Your task to perform on an android device: turn pop-ups on in chrome Image 0: 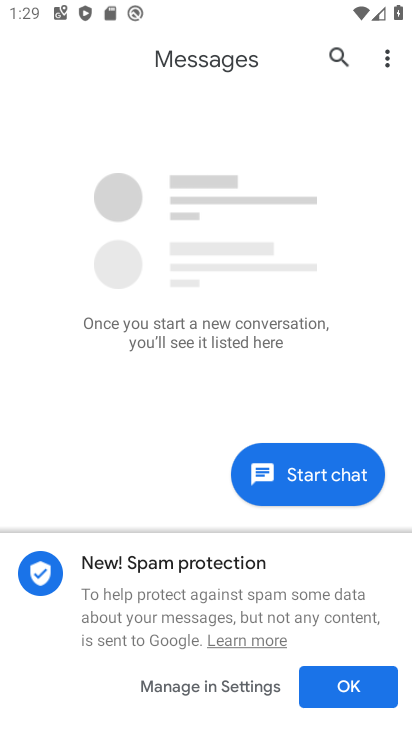
Step 0: press home button
Your task to perform on an android device: turn pop-ups on in chrome Image 1: 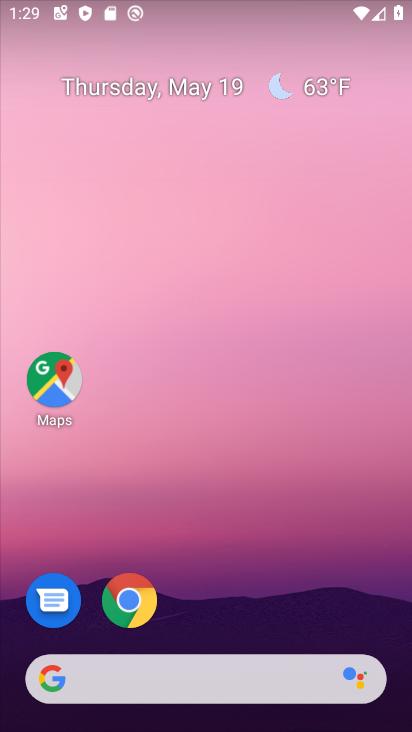
Step 1: drag from (285, 631) to (248, 523)
Your task to perform on an android device: turn pop-ups on in chrome Image 2: 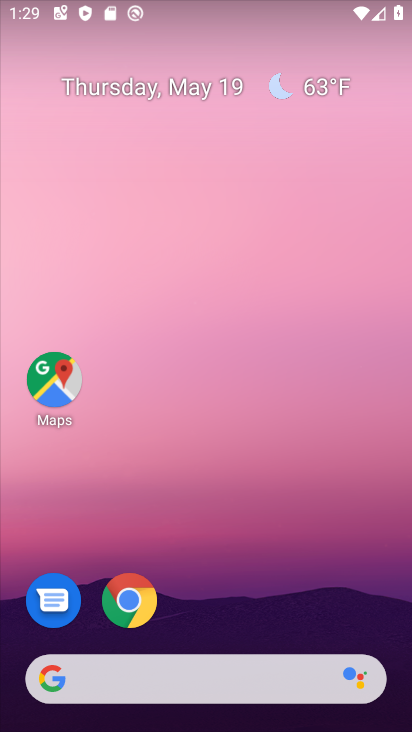
Step 2: click (125, 586)
Your task to perform on an android device: turn pop-ups on in chrome Image 3: 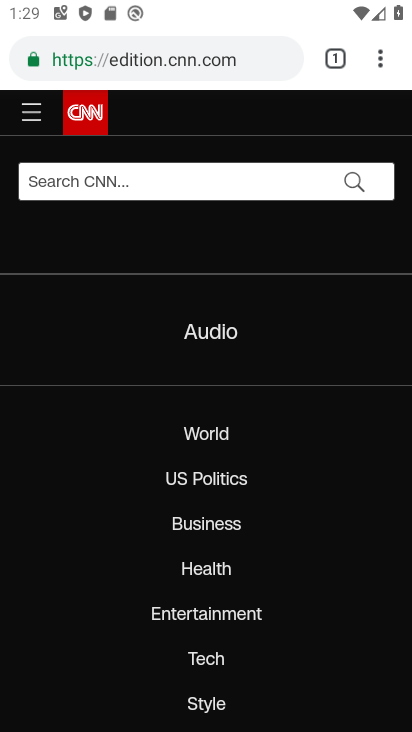
Step 3: click (379, 57)
Your task to perform on an android device: turn pop-ups on in chrome Image 4: 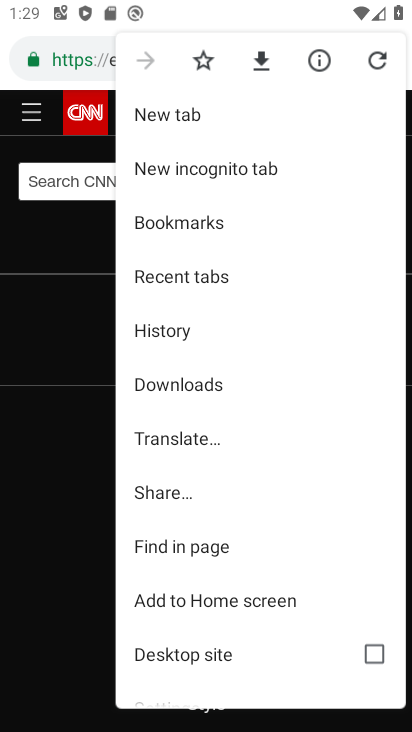
Step 4: drag from (201, 627) to (205, 280)
Your task to perform on an android device: turn pop-ups on in chrome Image 5: 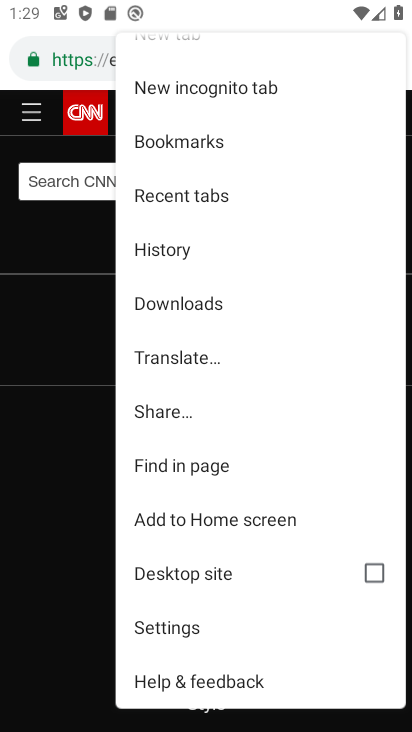
Step 5: click (207, 625)
Your task to perform on an android device: turn pop-ups on in chrome Image 6: 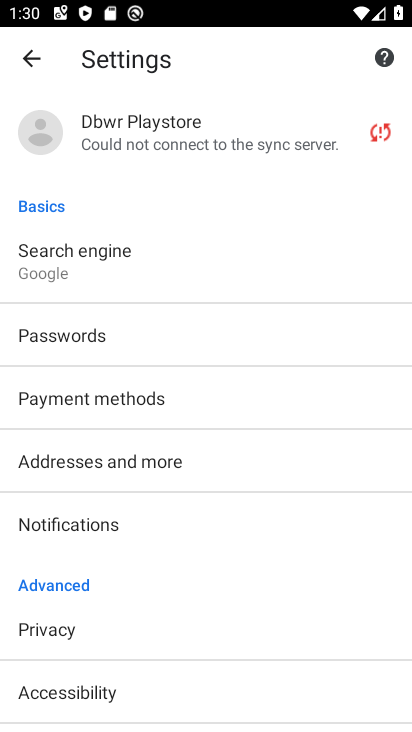
Step 6: drag from (190, 668) to (166, 302)
Your task to perform on an android device: turn pop-ups on in chrome Image 7: 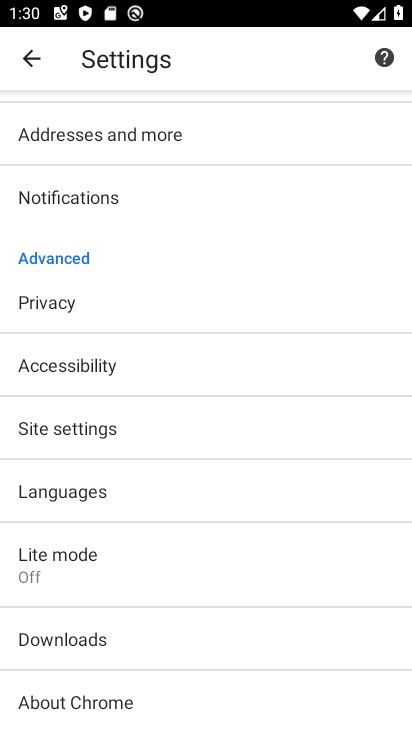
Step 7: click (124, 437)
Your task to perform on an android device: turn pop-ups on in chrome Image 8: 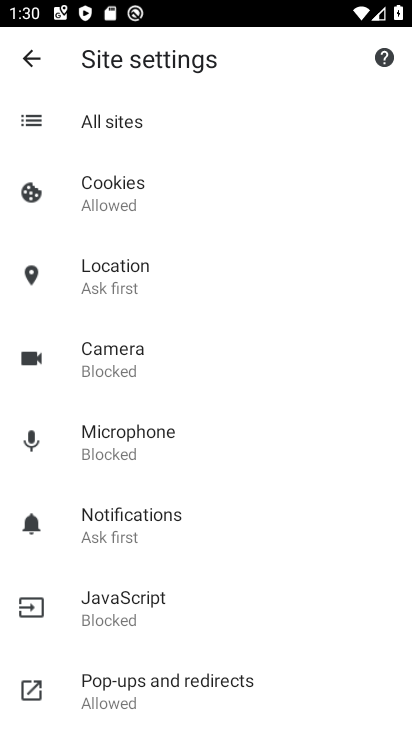
Step 8: click (160, 687)
Your task to perform on an android device: turn pop-ups on in chrome Image 9: 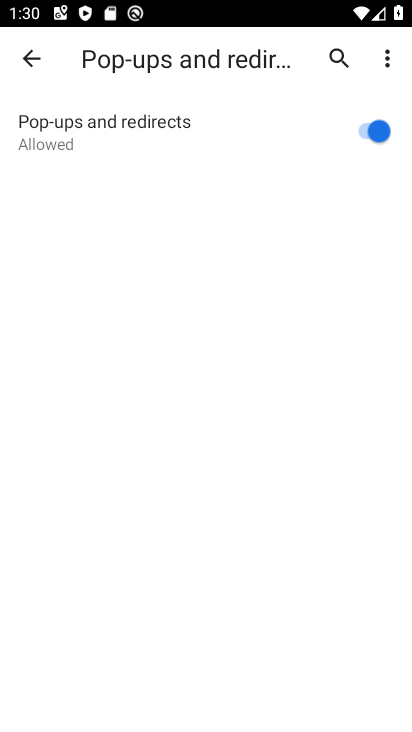
Step 9: task complete